Your task to perform on an android device: turn on translation in the chrome app Image 0: 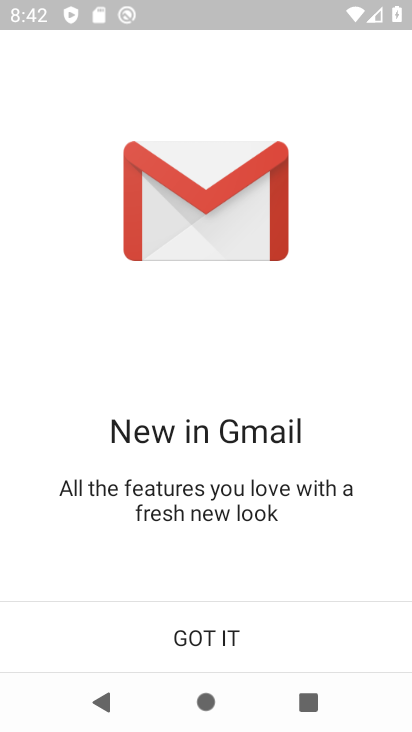
Step 0: press home button
Your task to perform on an android device: turn on translation in the chrome app Image 1: 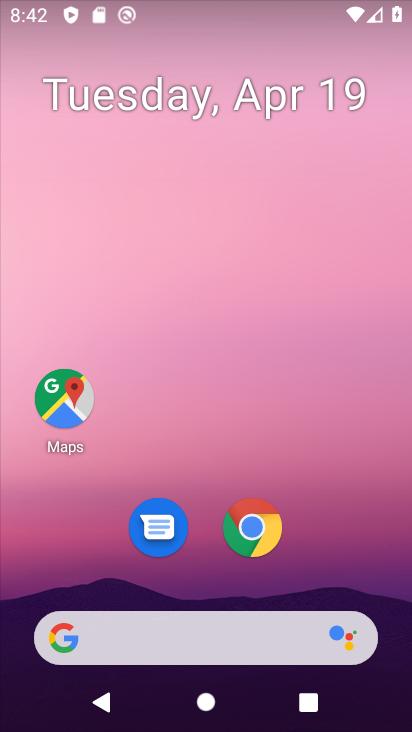
Step 1: drag from (272, 518) to (296, 126)
Your task to perform on an android device: turn on translation in the chrome app Image 2: 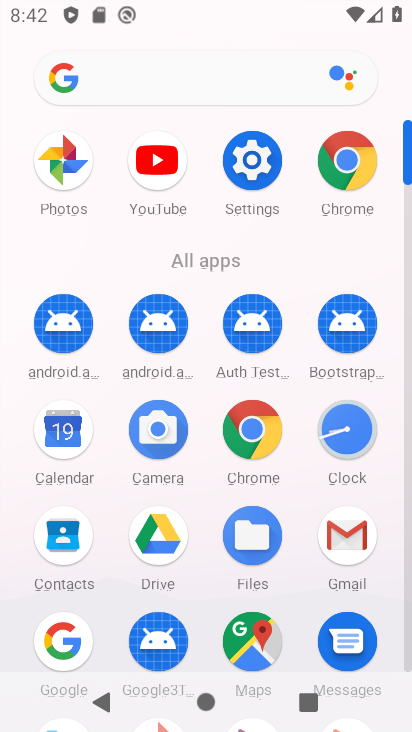
Step 2: click (262, 418)
Your task to perform on an android device: turn on translation in the chrome app Image 3: 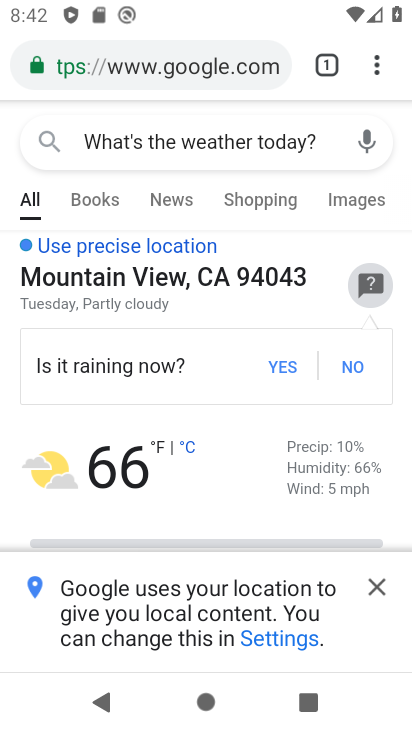
Step 3: click (373, 64)
Your task to perform on an android device: turn on translation in the chrome app Image 4: 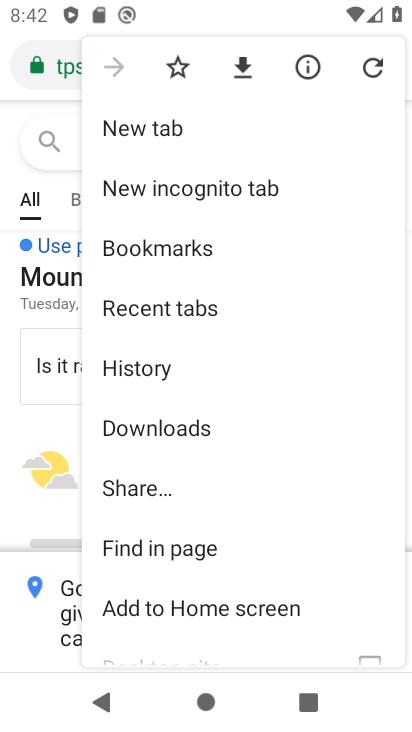
Step 4: drag from (209, 566) to (263, 195)
Your task to perform on an android device: turn on translation in the chrome app Image 5: 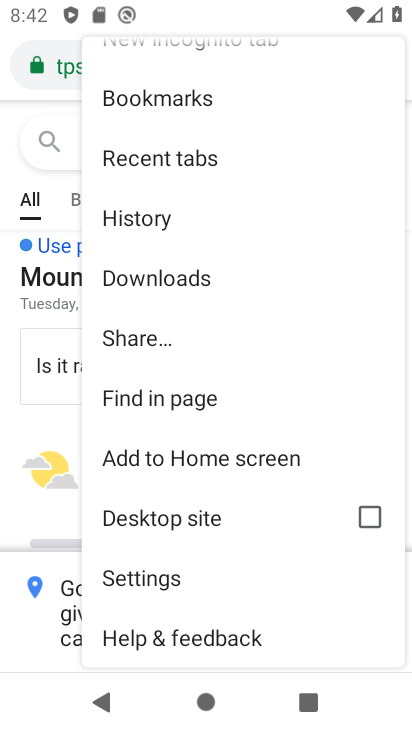
Step 5: click (169, 569)
Your task to perform on an android device: turn on translation in the chrome app Image 6: 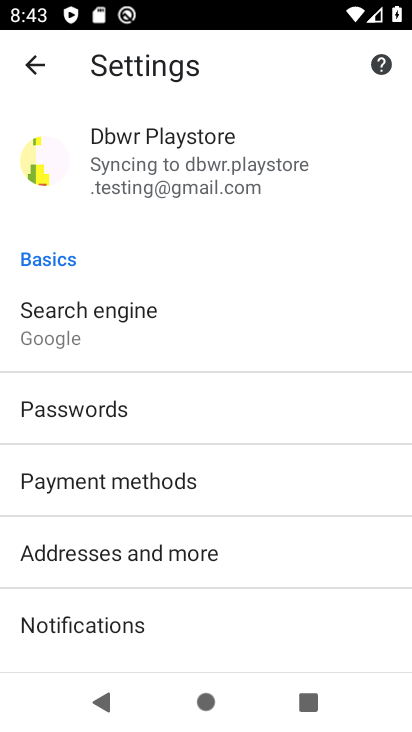
Step 6: drag from (210, 617) to (347, 266)
Your task to perform on an android device: turn on translation in the chrome app Image 7: 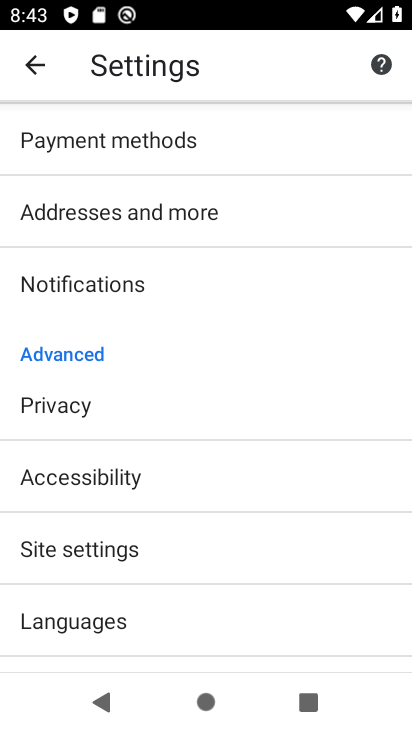
Step 7: drag from (192, 558) to (222, 398)
Your task to perform on an android device: turn on translation in the chrome app Image 8: 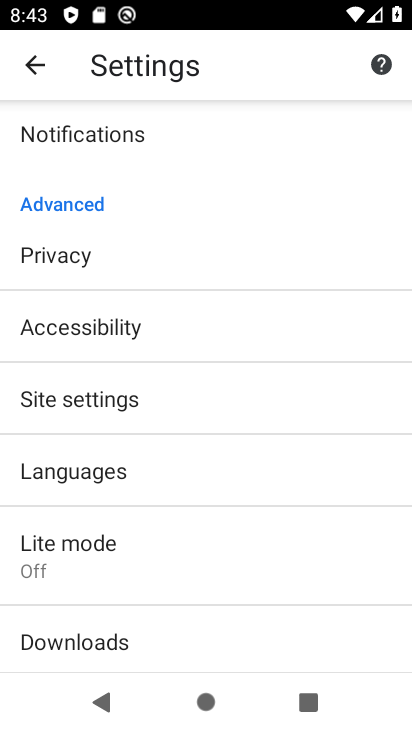
Step 8: click (177, 467)
Your task to perform on an android device: turn on translation in the chrome app Image 9: 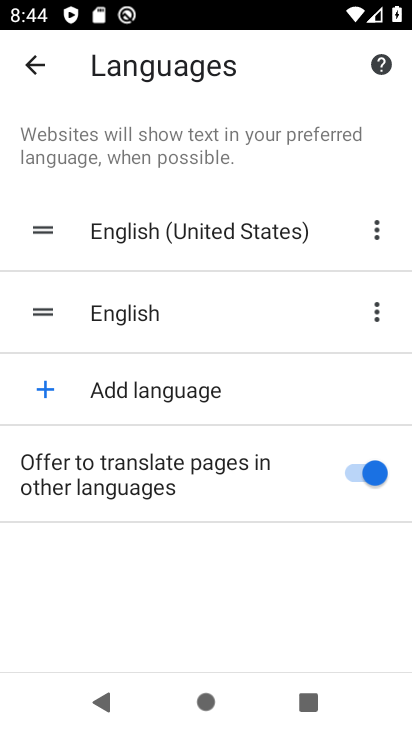
Step 9: task complete